Your task to perform on an android device: turn off location history Image 0: 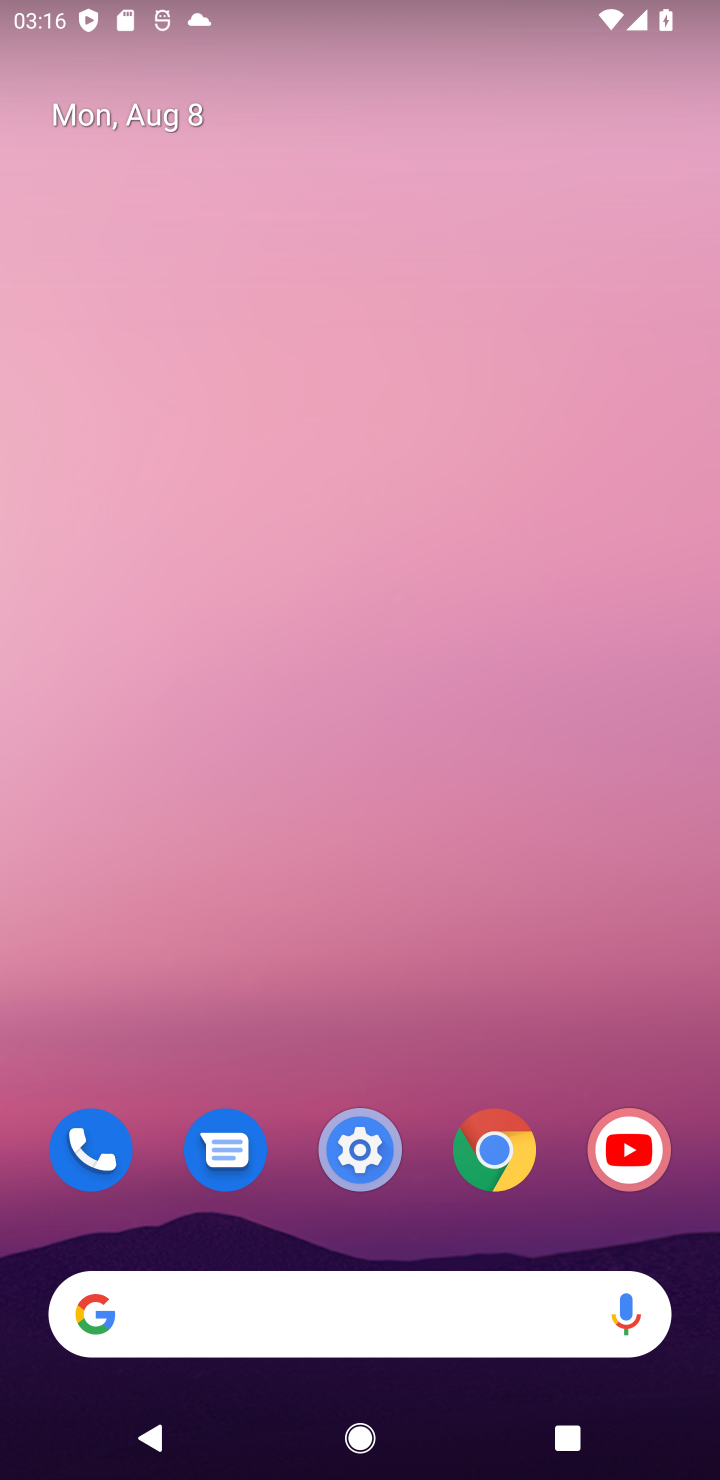
Step 0: drag from (76, 1396) to (373, 506)
Your task to perform on an android device: turn off location history Image 1: 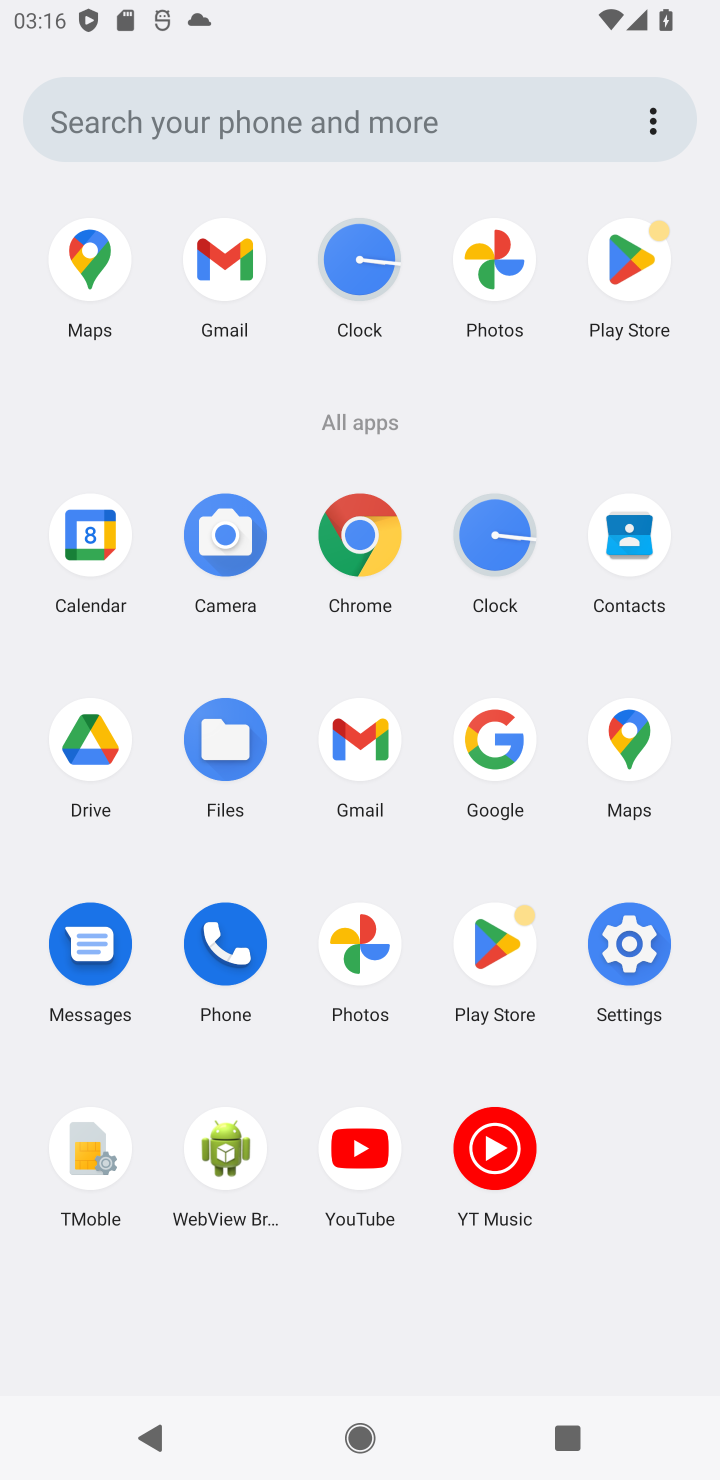
Step 1: click (612, 946)
Your task to perform on an android device: turn off location history Image 2: 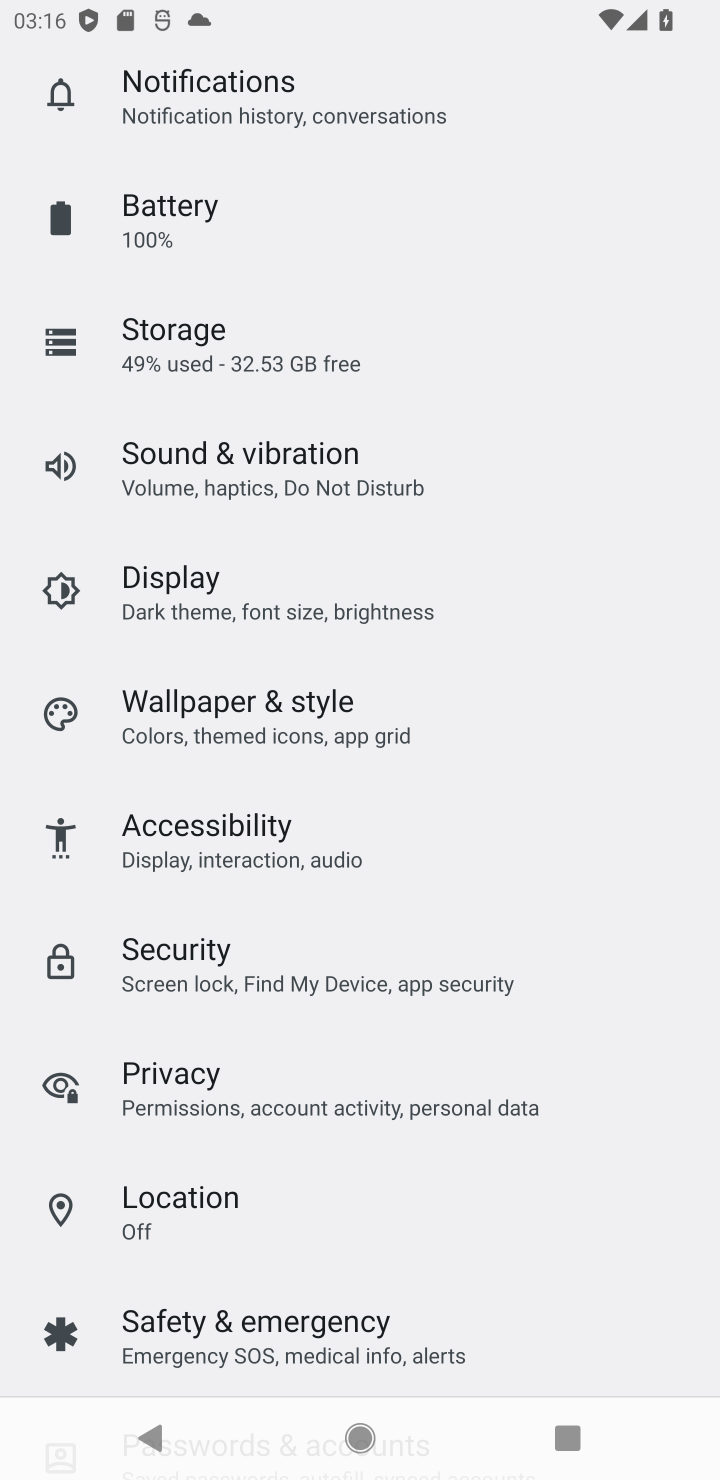
Step 2: click (145, 1210)
Your task to perform on an android device: turn off location history Image 3: 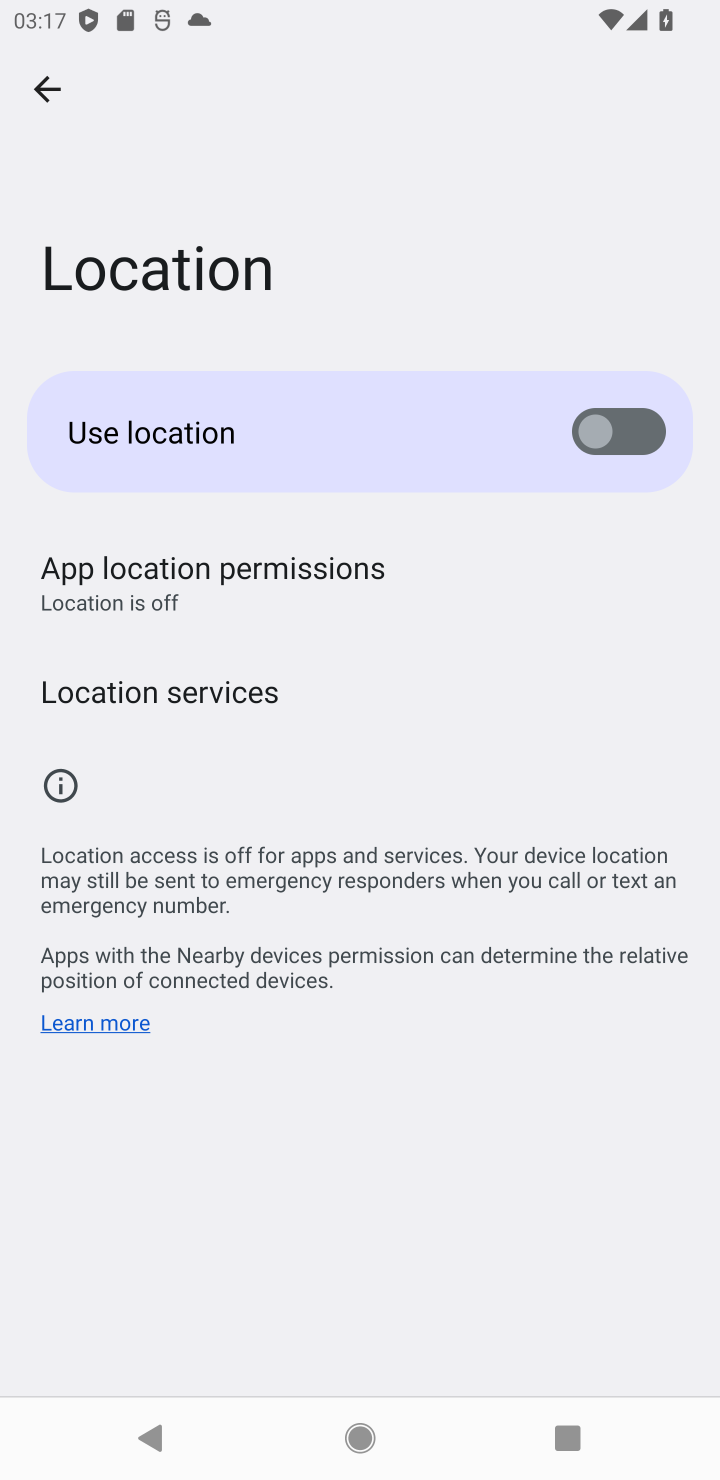
Step 3: task complete